Your task to perform on an android device: turn on priority inbox in the gmail app Image 0: 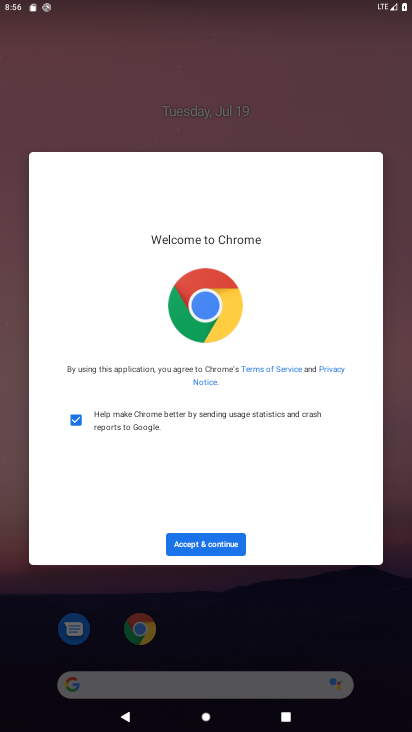
Step 0: press home button
Your task to perform on an android device: turn on priority inbox in the gmail app Image 1: 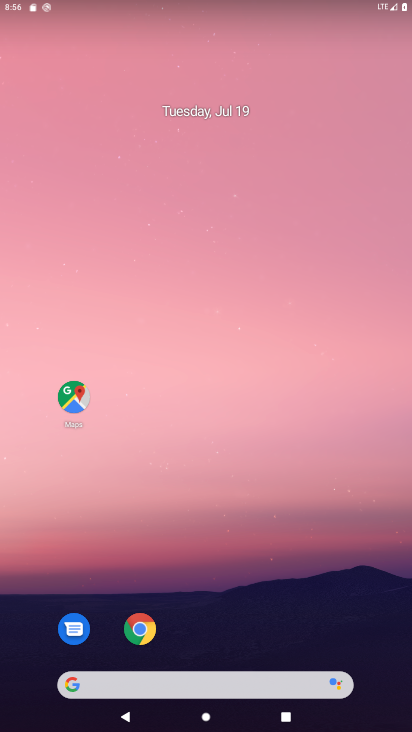
Step 1: drag from (232, 666) to (133, 21)
Your task to perform on an android device: turn on priority inbox in the gmail app Image 2: 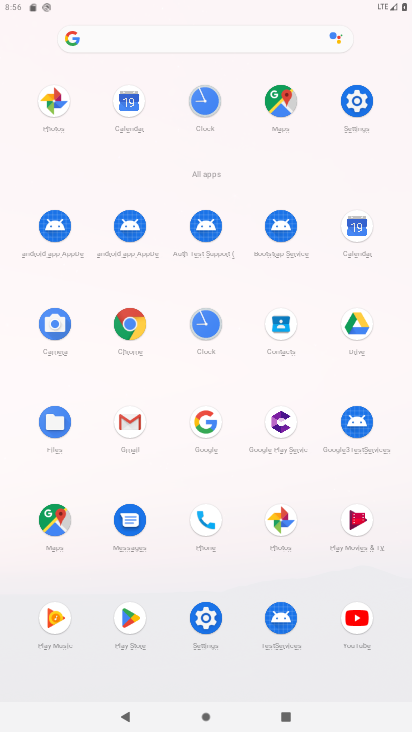
Step 2: click (127, 432)
Your task to perform on an android device: turn on priority inbox in the gmail app Image 3: 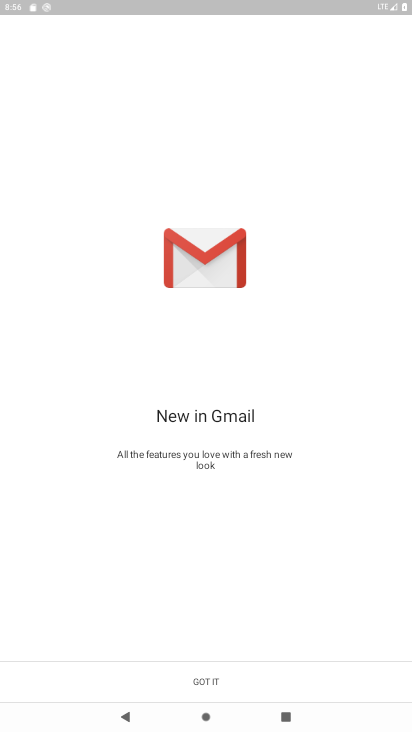
Step 3: click (222, 664)
Your task to perform on an android device: turn on priority inbox in the gmail app Image 4: 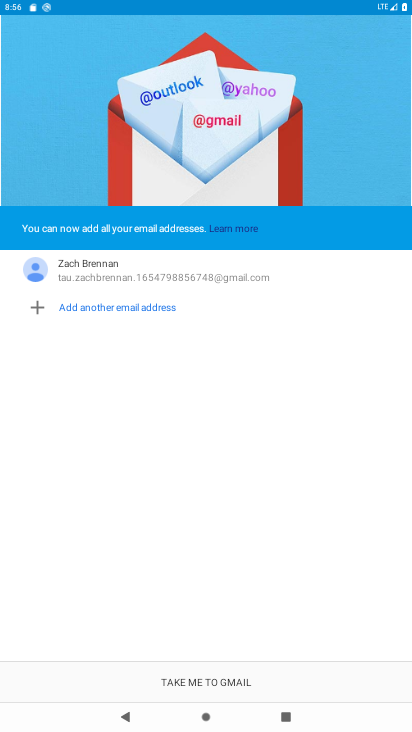
Step 4: click (222, 664)
Your task to perform on an android device: turn on priority inbox in the gmail app Image 5: 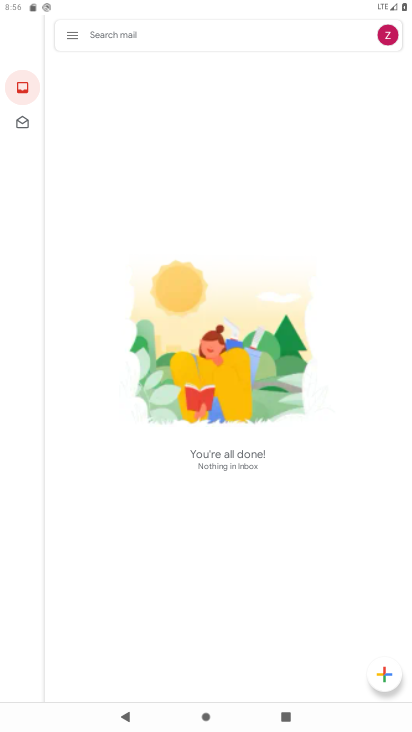
Step 5: click (68, 33)
Your task to perform on an android device: turn on priority inbox in the gmail app Image 6: 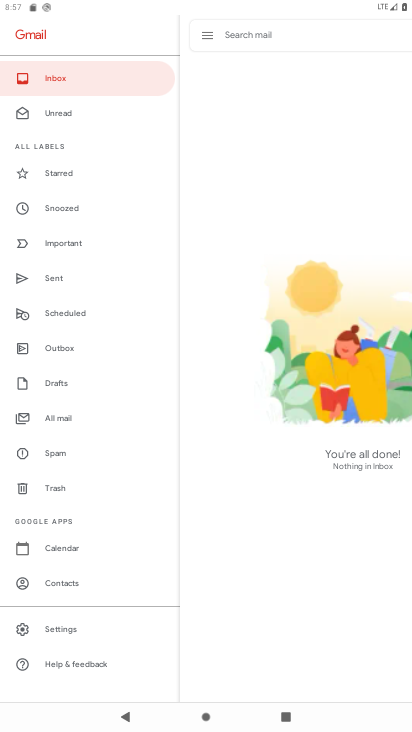
Step 6: click (65, 631)
Your task to perform on an android device: turn on priority inbox in the gmail app Image 7: 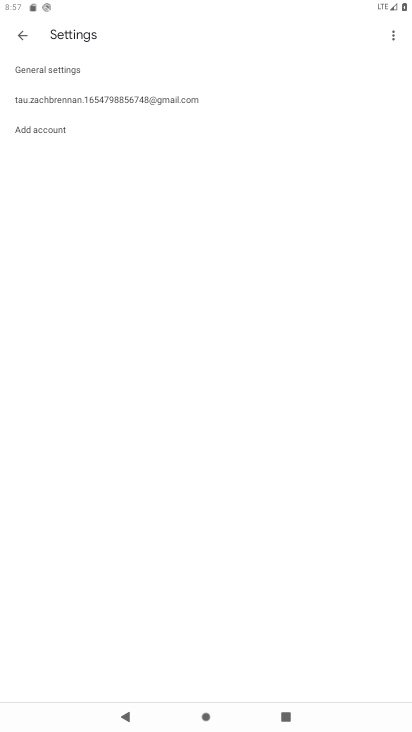
Step 7: click (40, 97)
Your task to perform on an android device: turn on priority inbox in the gmail app Image 8: 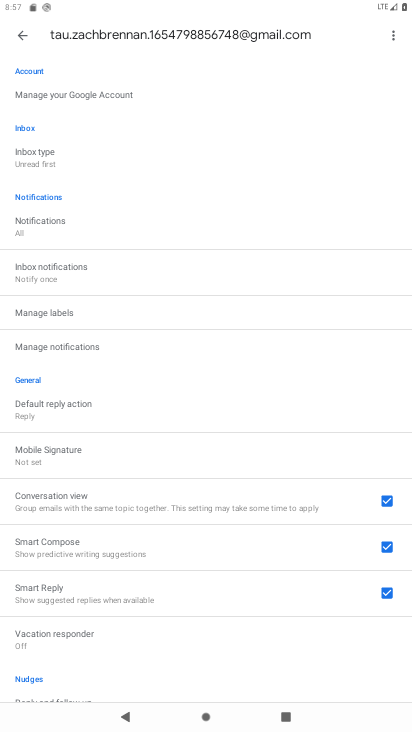
Step 8: click (36, 157)
Your task to perform on an android device: turn on priority inbox in the gmail app Image 9: 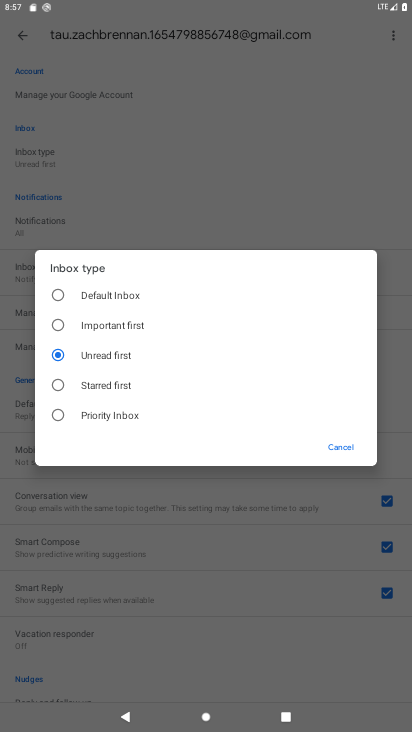
Step 9: click (63, 409)
Your task to perform on an android device: turn on priority inbox in the gmail app Image 10: 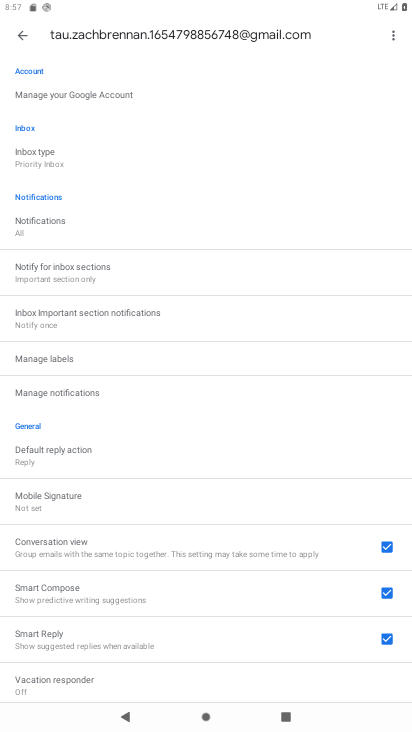
Step 10: task complete